Your task to perform on an android device: Open Youtube and go to "Your channel" Image 0: 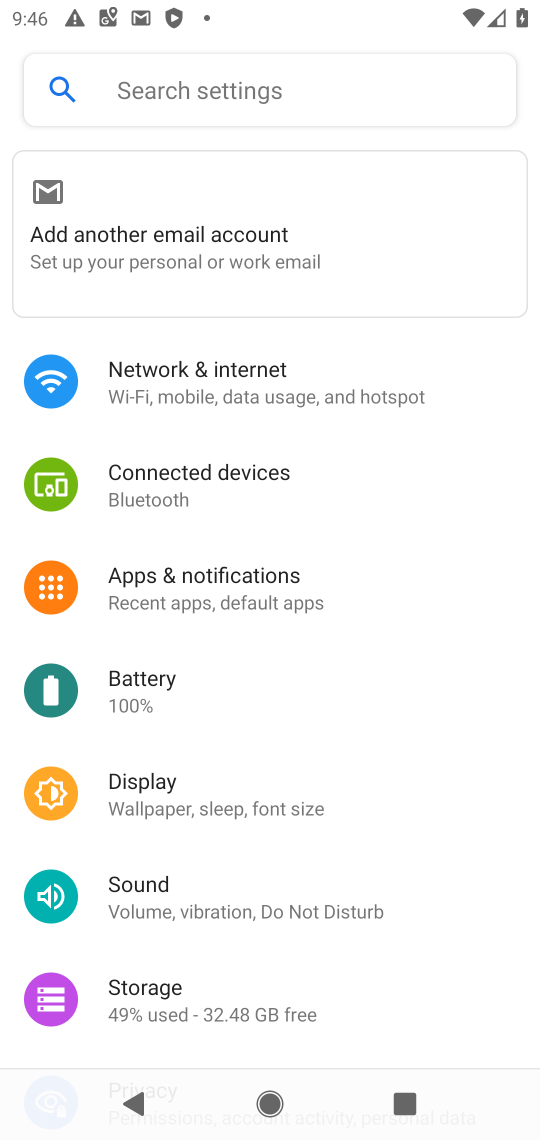
Step 0: press home button
Your task to perform on an android device: Open Youtube and go to "Your channel" Image 1: 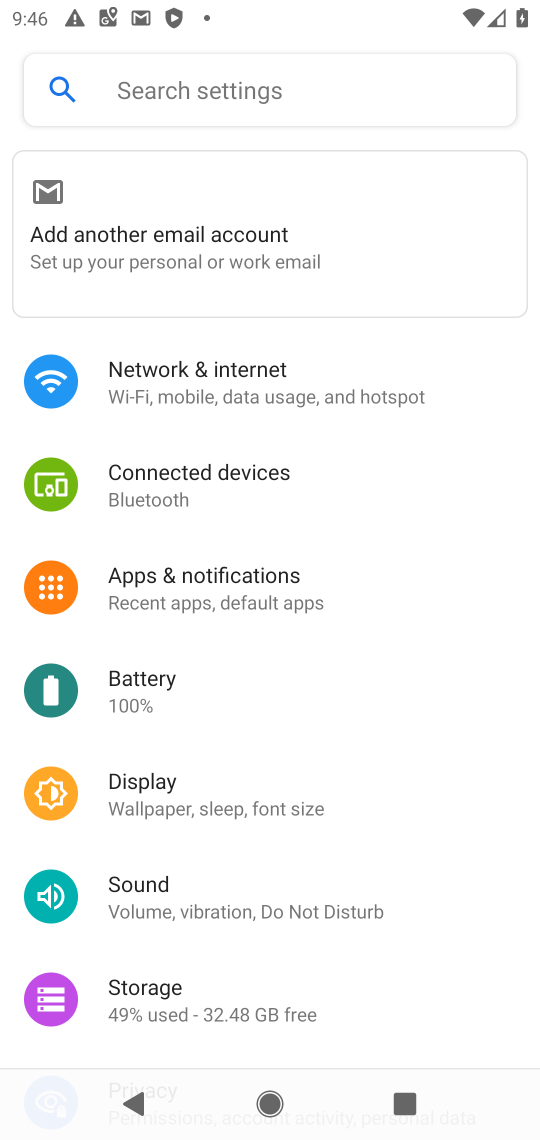
Step 1: press home button
Your task to perform on an android device: Open Youtube and go to "Your channel" Image 2: 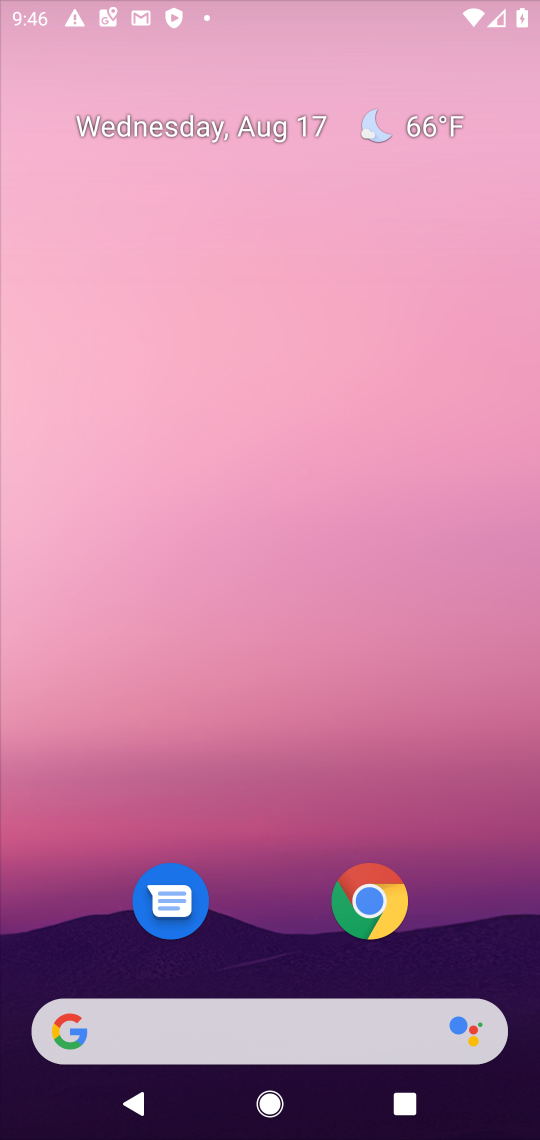
Step 2: press home button
Your task to perform on an android device: Open Youtube and go to "Your channel" Image 3: 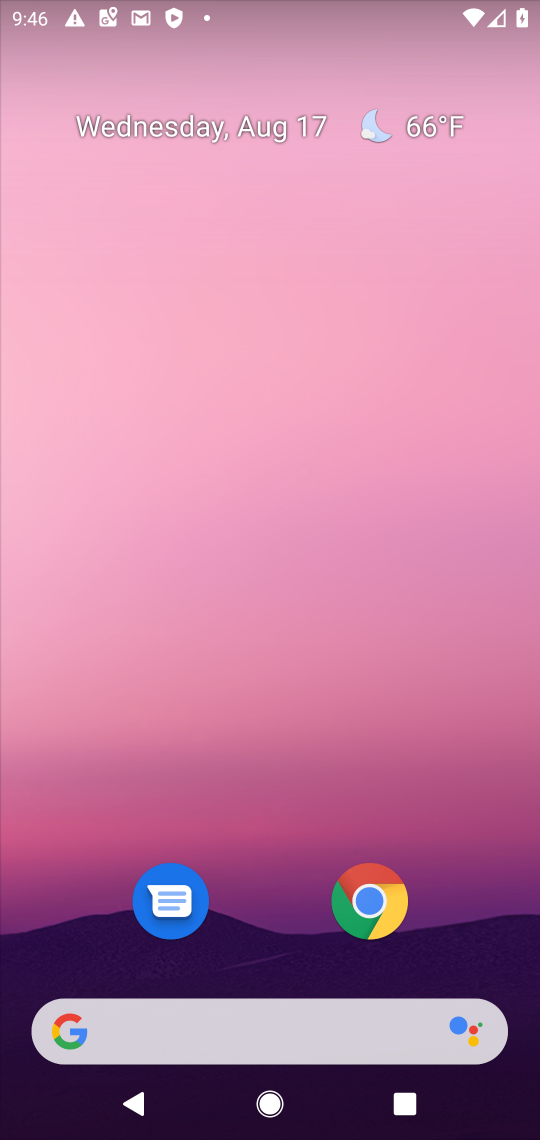
Step 3: drag from (251, 931) to (345, 65)
Your task to perform on an android device: Open Youtube and go to "Your channel" Image 4: 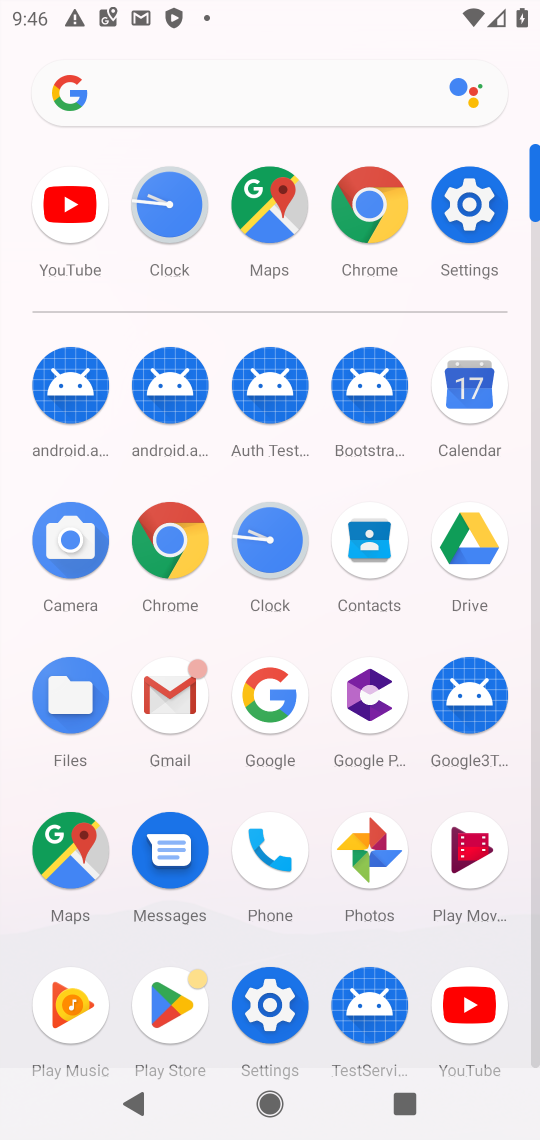
Step 4: click (462, 992)
Your task to perform on an android device: Open Youtube and go to "Your channel" Image 5: 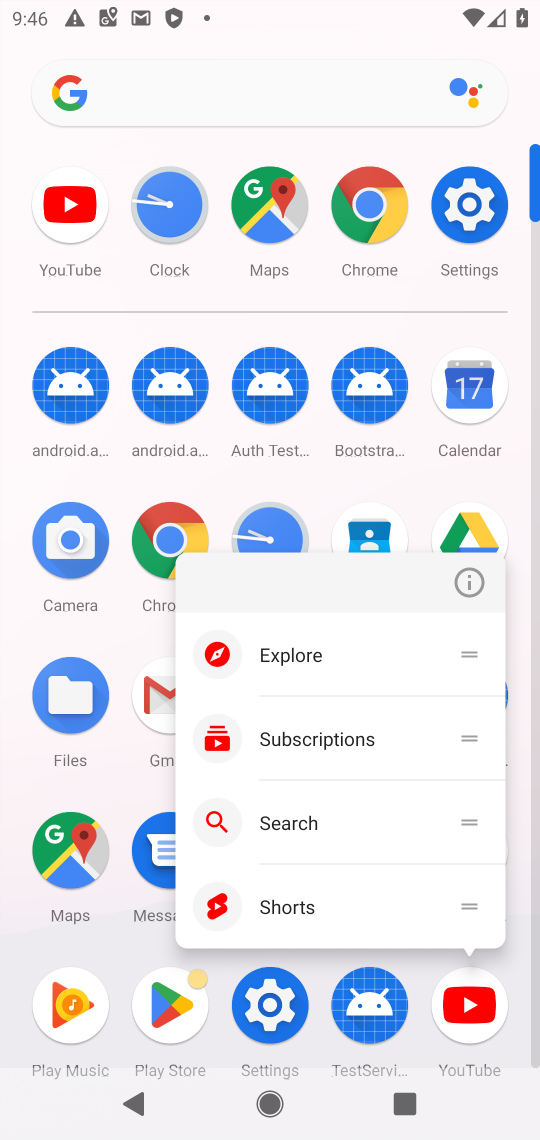
Step 5: click (468, 1005)
Your task to perform on an android device: Open Youtube and go to "Your channel" Image 6: 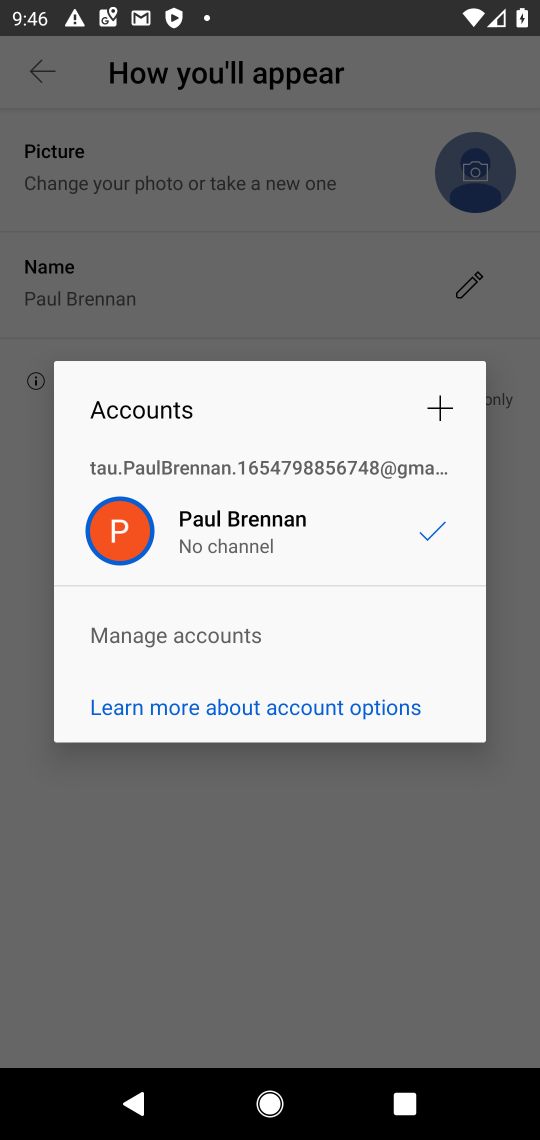
Step 6: task complete